Your task to perform on an android device: toggle pop-ups in chrome Image 0: 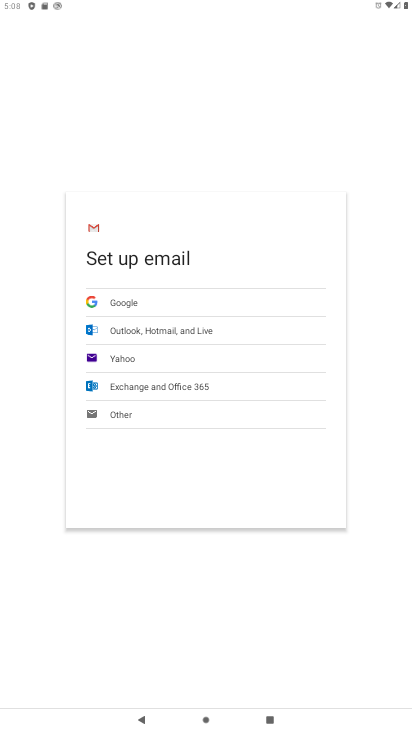
Step 0: press home button
Your task to perform on an android device: toggle pop-ups in chrome Image 1: 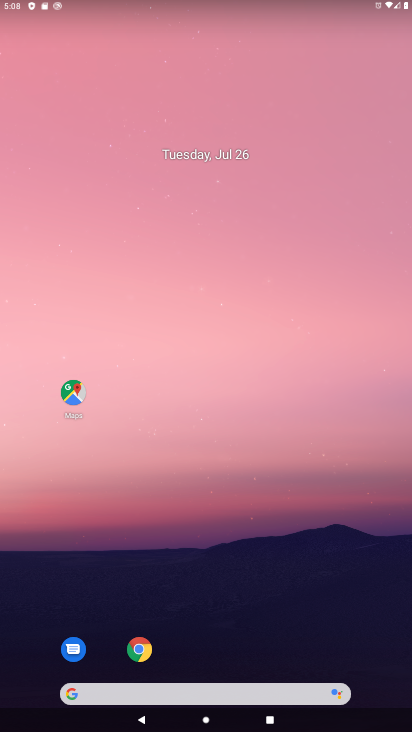
Step 1: drag from (241, 631) to (199, 25)
Your task to perform on an android device: toggle pop-ups in chrome Image 2: 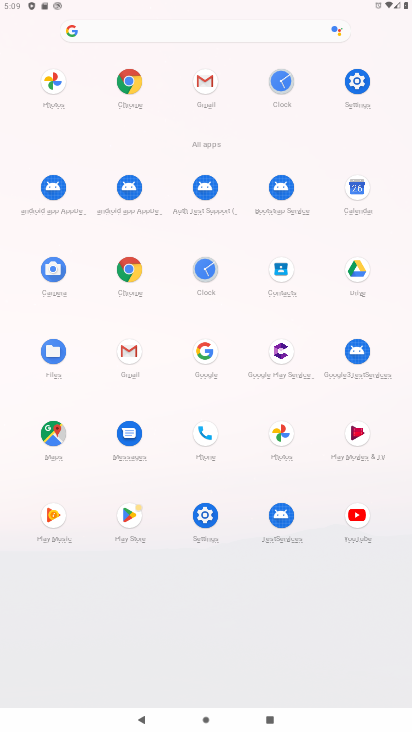
Step 2: click (128, 84)
Your task to perform on an android device: toggle pop-ups in chrome Image 3: 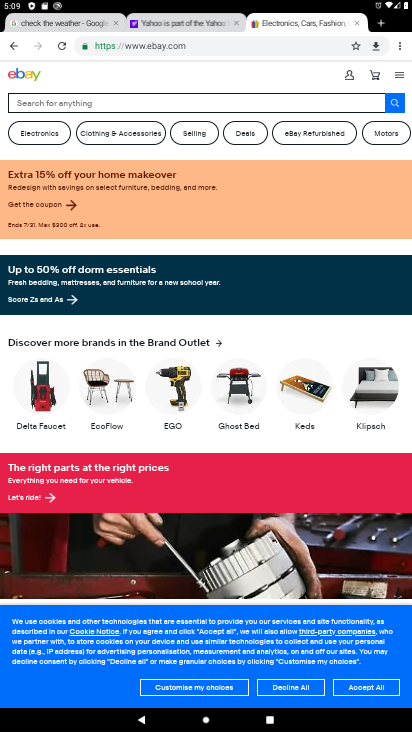
Step 3: click (404, 43)
Your task to perform on an android device: toggle pop-ups in chrome Image 4: 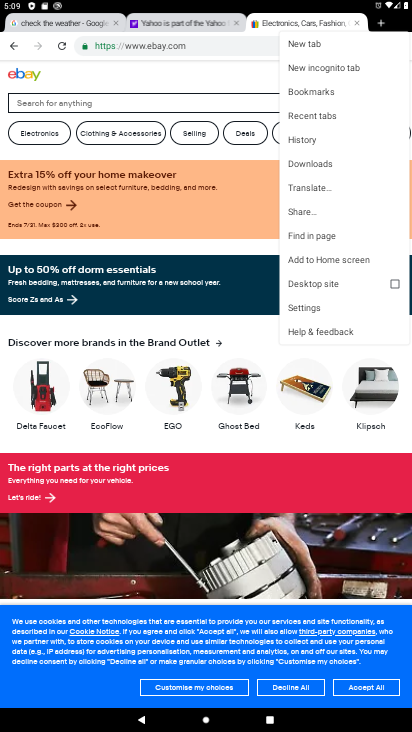
Step 4: click (353, 300)
Your task to perform on an android device: toggle pop-ups in chrome Image 5: 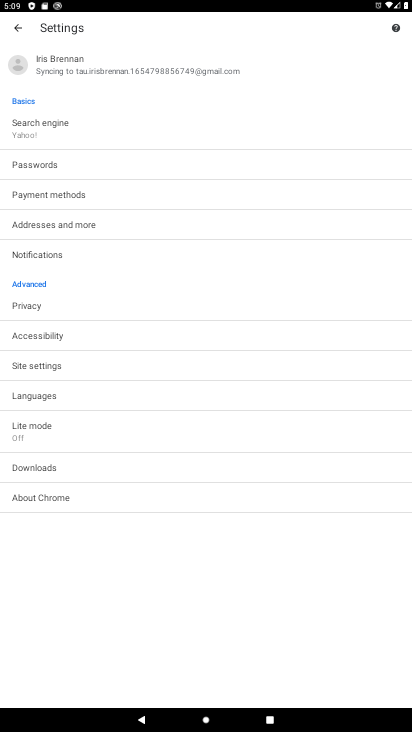
Step 5: click (167, 365)
Your task to perform on an android device: toggle pop-ups in chrome Image 6: 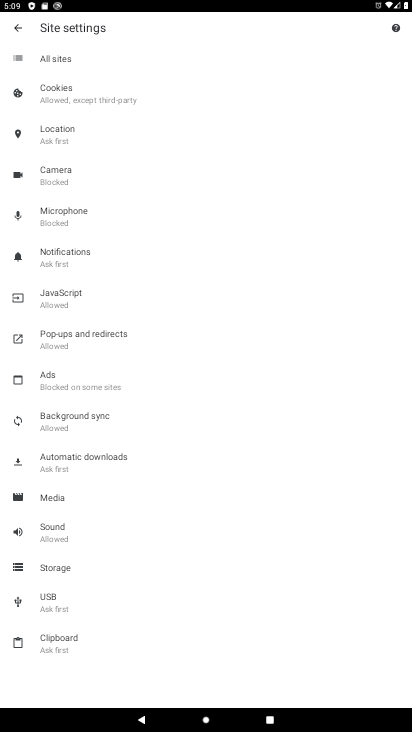
Step 6: click (142, 336)
Your task to perform on an android device: toggle pop-ups in chrome Image 7: 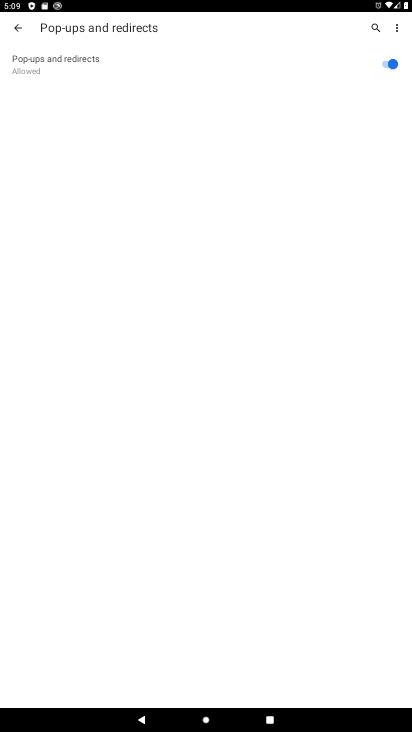
Step 7: click (395, 68)
Your task to perform on an android device: toggle pop-ups in chrome Image 8: 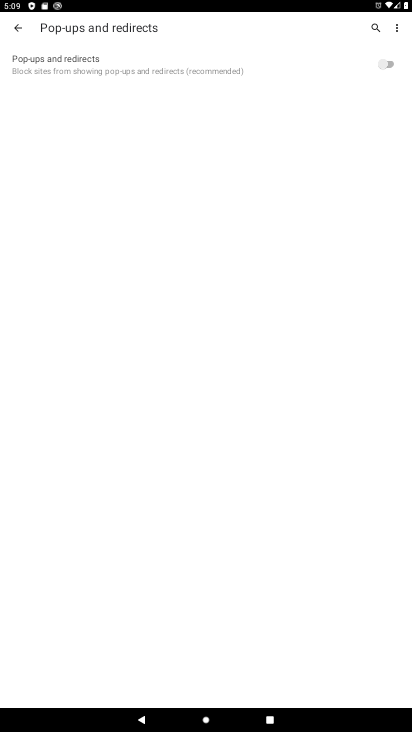
Step 8: task complete